Your task to perform on an android device: Open Amazon Image 0: 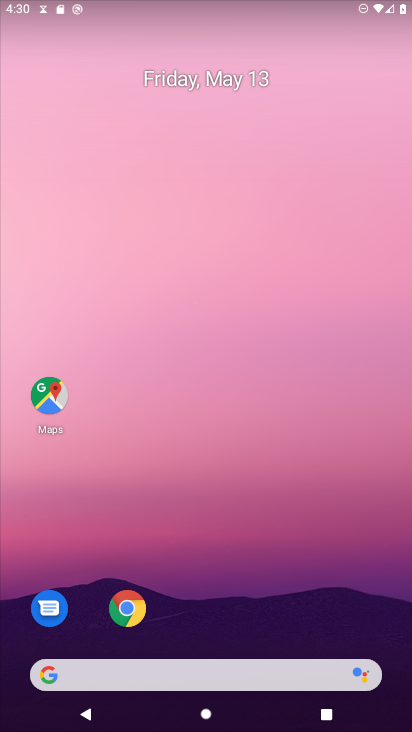
Step 0: drag from (224, 635) to (278, 3)
Your task to perform on an android device: Open Amazon Image 1: 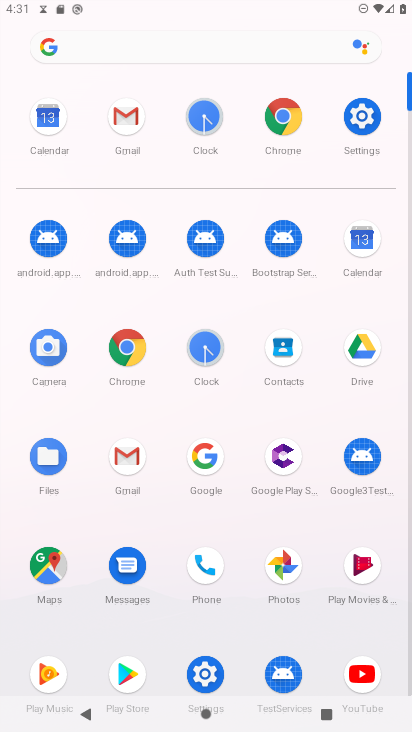
Step 1: click (120, 349)
Your task to perform on an android device: Open Amazon Image 2: 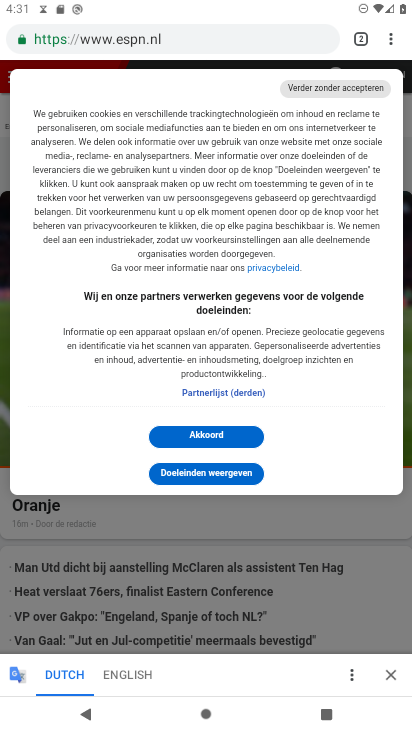
Step 2: click (240, 45)
Your task to perform on an android device: Open Amazon Image 3: 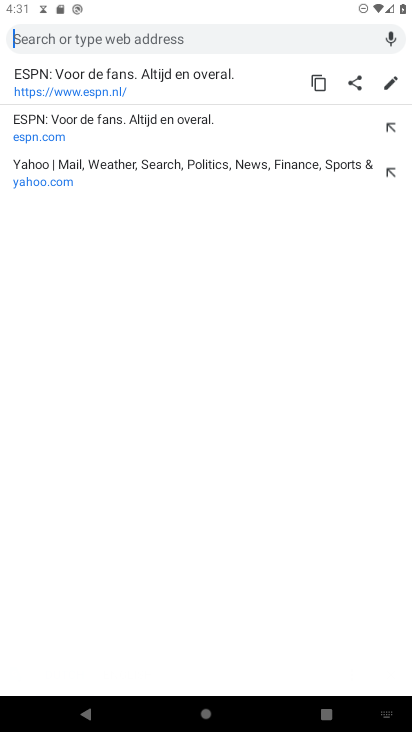
Step 3: type "amazon"
Your task to perform on an android device: Open Amazon Image 4: 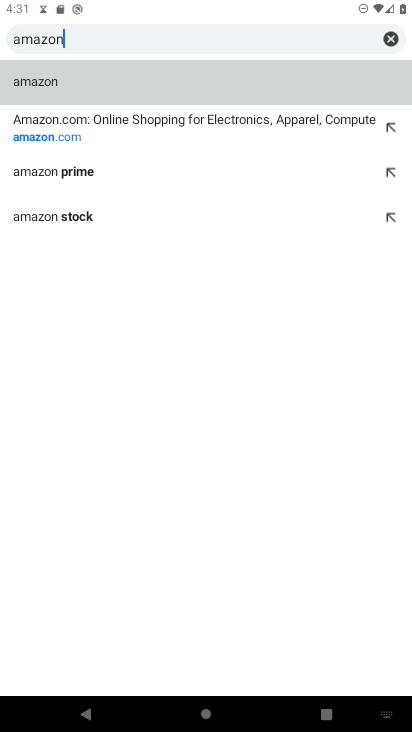
Step 4: click (160, 135)
Your task to perform on an android device: Open Amazon Image 5: 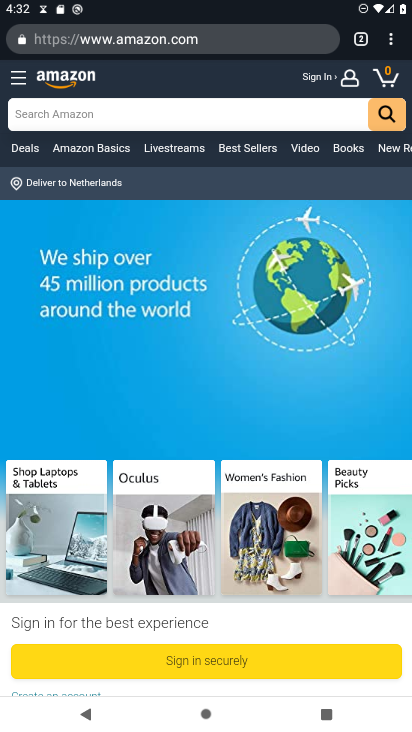
Step 5: task complete